Your task to perform on an android device: Open notification settings Image 0: 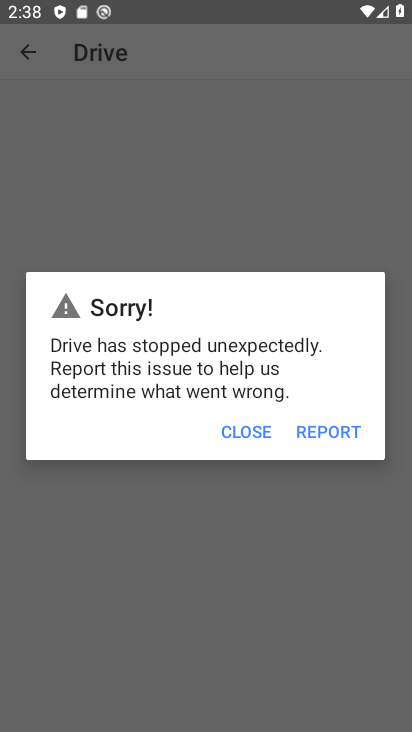
Step 0: press home button
Your task to perform on an android device: Open notification settings Image 1: 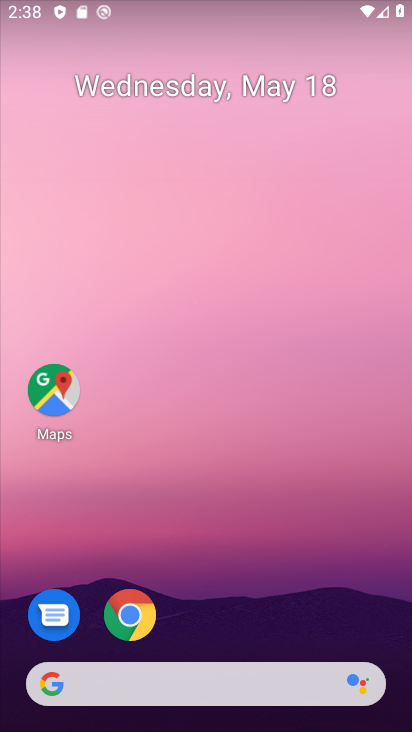
Step 1: drag from (269, 606) to (266, 154)
Your task to perform on an android device: Open notification settings Image 2: 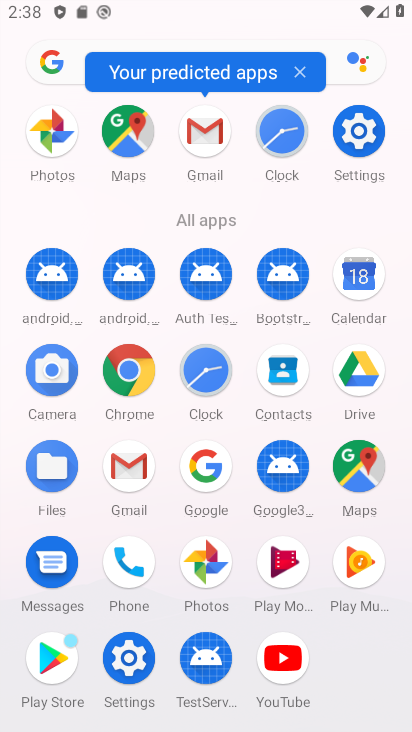
Step 2: click (367, 140)
Your task to perform on an android device: Open notification settings Image 3: 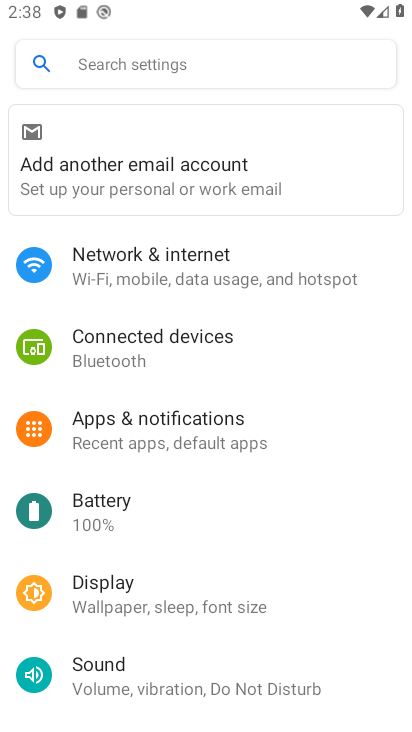
Step 3: click (168, 425)
Your task to perform on an android device: Open notification settings Image 4: 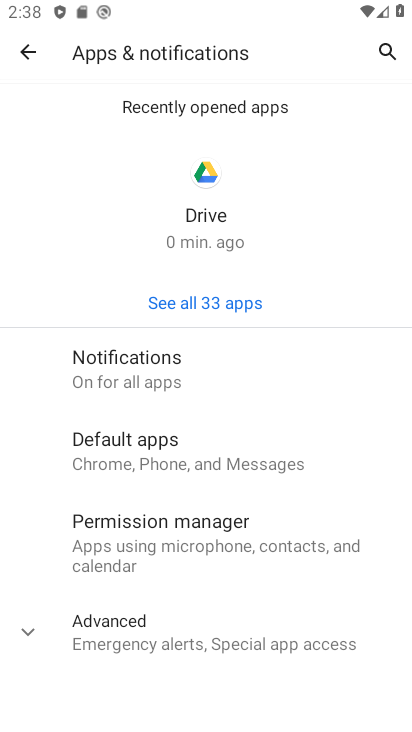
Step 4: click (152, 374)
Your task to perform on an android device: Open notification settings Image 5: 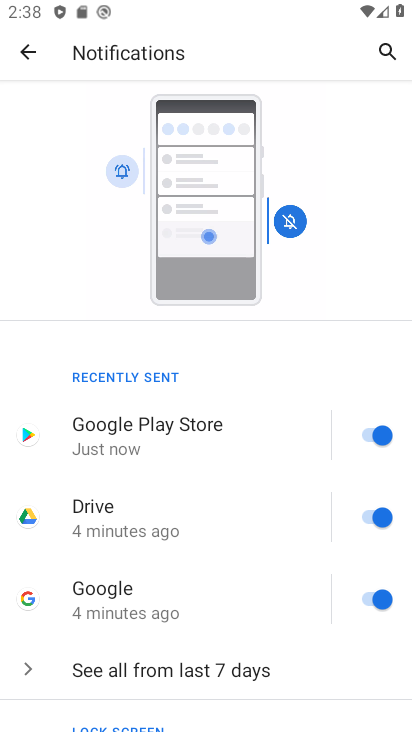
Step 5: task complete